Your task to perform on an android device: add a label to a message in the gmail app Image 0: 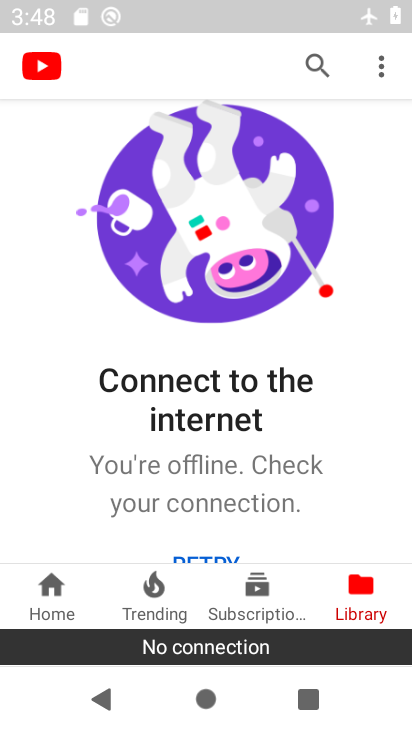
Step 0: press home button
Your task to perform on an android device: add a label to a message in the gmail app Image 1: 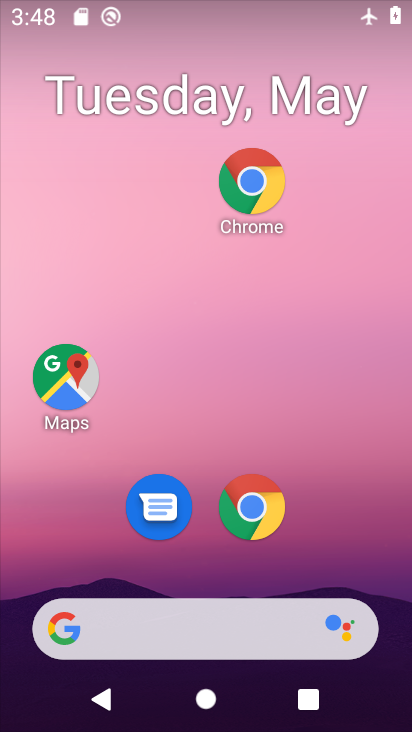
Step 1: drag from (347, 492) to (356, 72)
Your task to perform on an android device: add a label to a message in the gmail app Image 2: 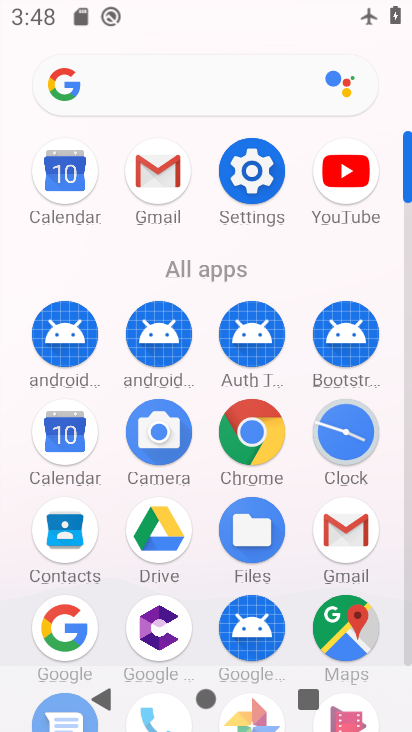
Step 2: click (171, 193)
Your task to perform on an android device: add a label to a message in the gmail app Image 3: 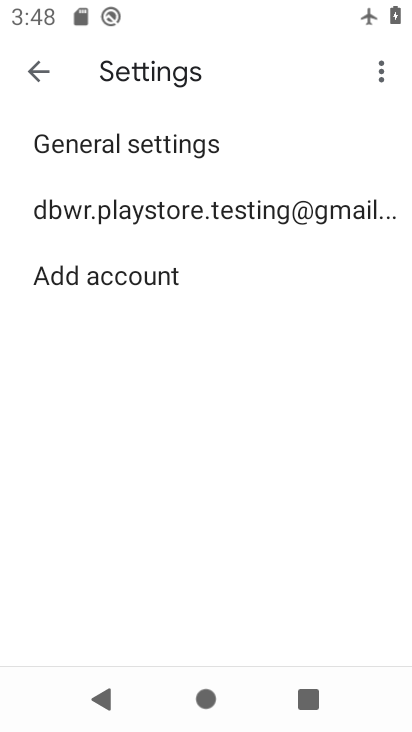
Step 3: click (188, 204)
Your task to perform on an android device: add a label to a message in the gmail app Image 4: 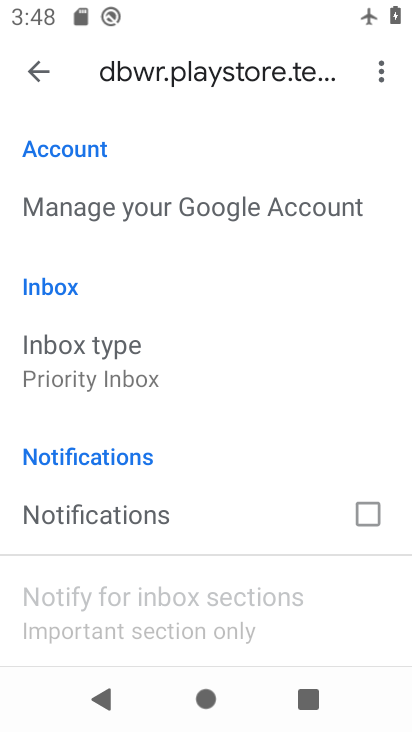
Step 4: drag from (134, 200) to (220, 591)
Your task to perform on an android device: add a label to a message in the gmail app Image 5: 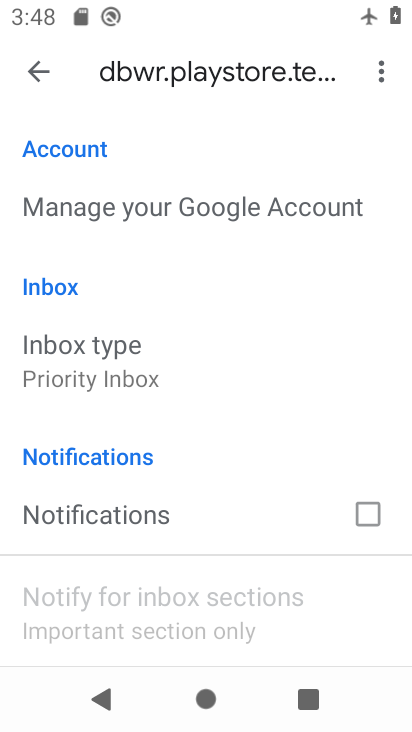
Step 5: drag from (188, 557) to (186, 267)
Your task to perform on an android device: add a label to a message in the gmail app Image 6: 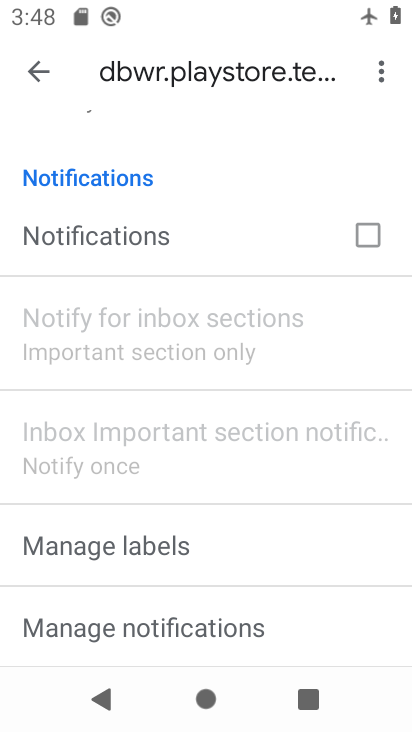
Step 6: click (36, 81)
Your task to perform on an android device: add a label to a message in the gmail app Image 7: 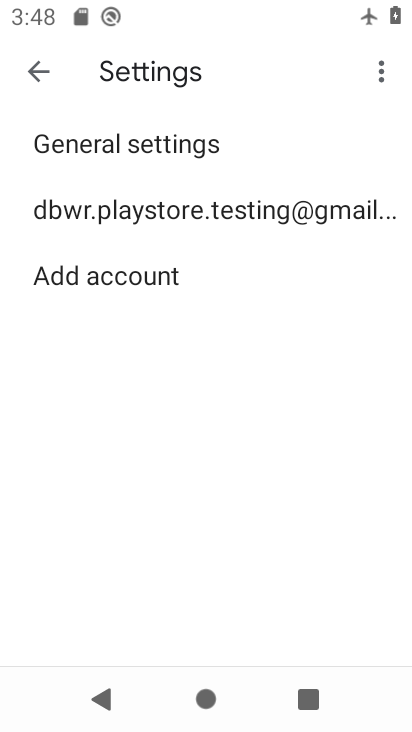
Step 7: click (36, 81)
Your task to perform on an android device: add a label to a message in the gmail app Image 8: 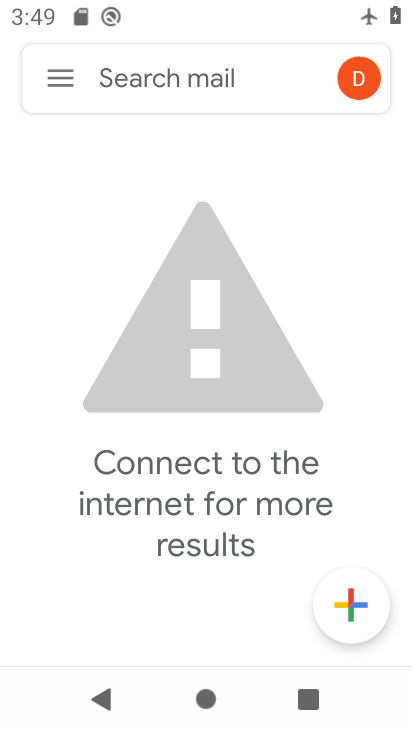
Step 8: click (42, 86)
Your task to perform on an android device: add a label to a message in the gmail app Image 9: 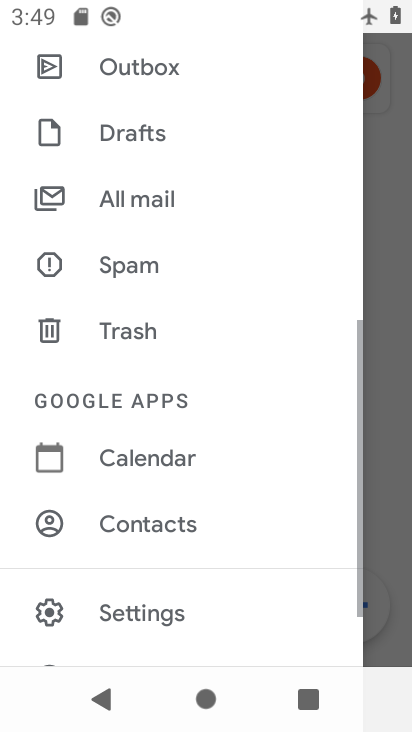
Step 9: drag from (247, 144) to (323, 547)
Your task to perform on an android device: add a label to a message in the gmail app Image 10: 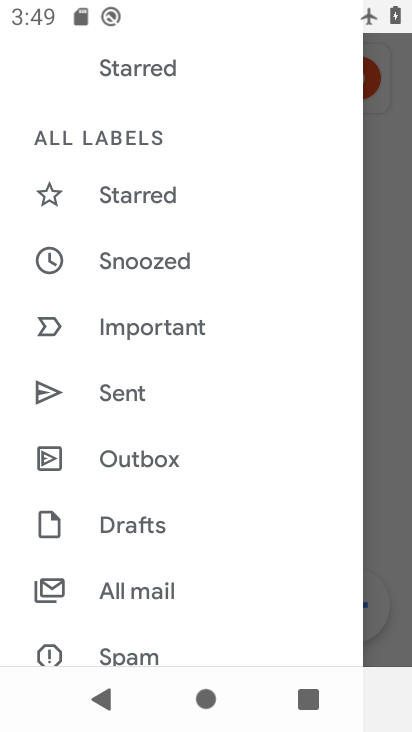
Step 10: drag from (130, 101) to (163, 527)
Your task to perform on an android device: add a label to a message in the gmail app Image 11: 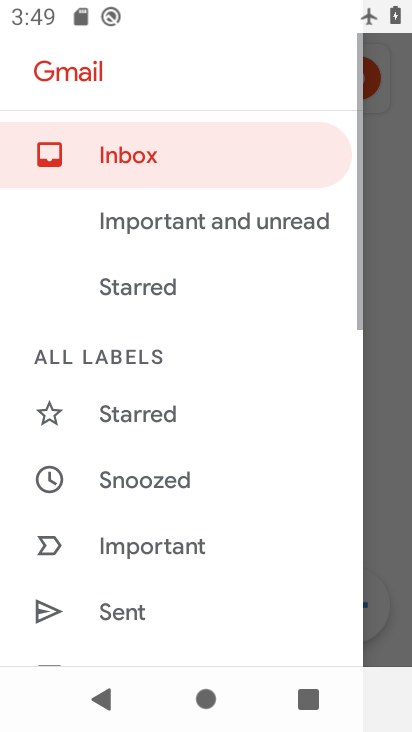
Step 11: click (81, 182)
Your task to perform on an android device: add a label to a message in the gmail app Image 12: 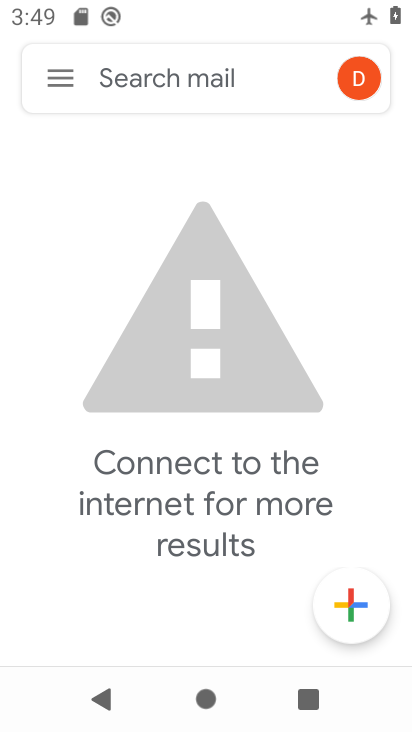
Step 12: task complete